Your task to perform on an android device: Open Google Image 0: 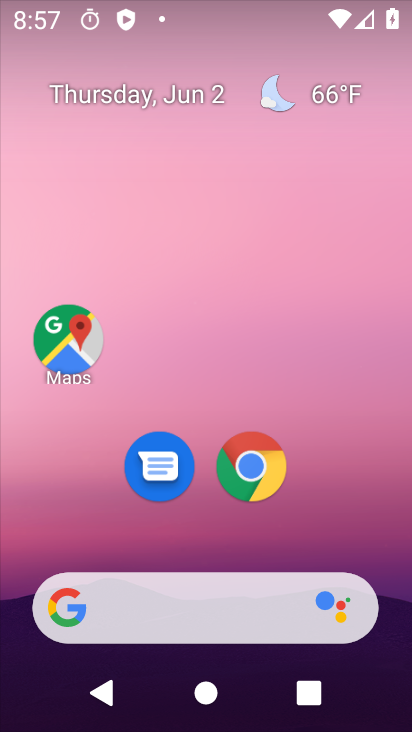
Step 0: click (102, 593)
Your task to perform on an android device: Open Google Image 1: 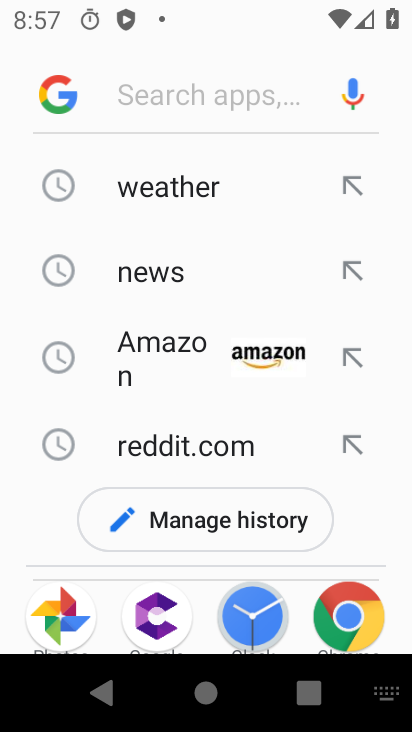
Step 1: click (59, 86)
Your task to perform on an android device: Open Google Image 2: 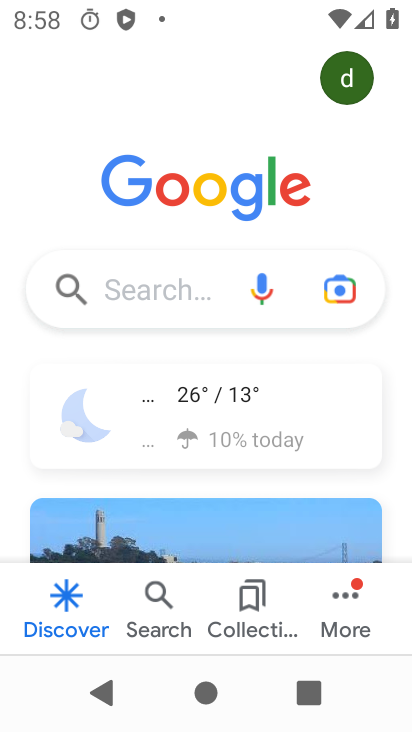
Step 2: task complete